Your task to perform on an android device: Search for 24"x36" picture frame on Home Depot. Image 0: 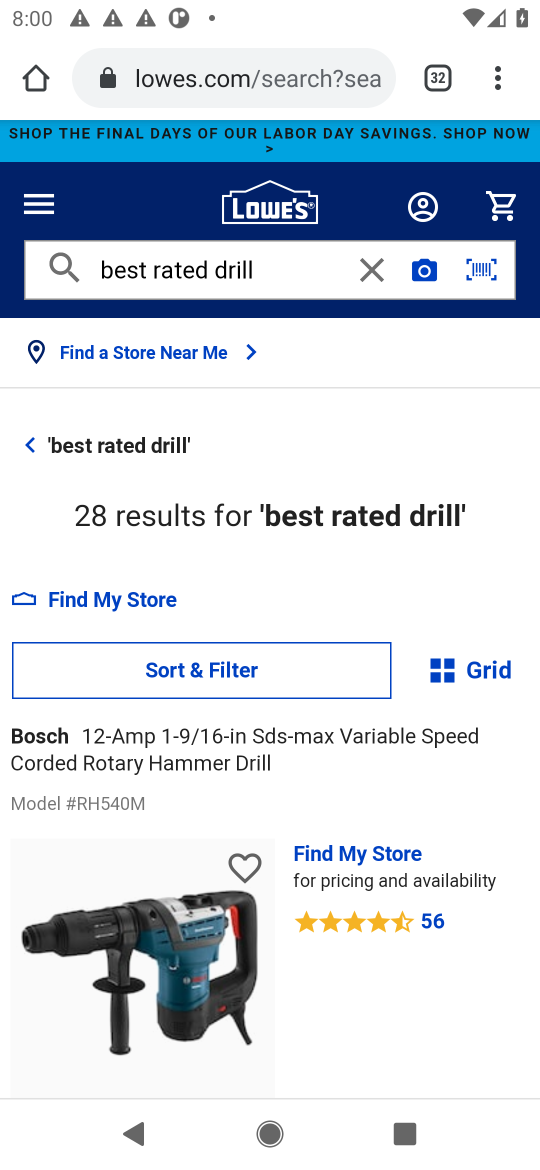
Step 0: press home button
Your task to perform on an android device: Search for 24"x36" picture frame on Home Depot. Image 1: 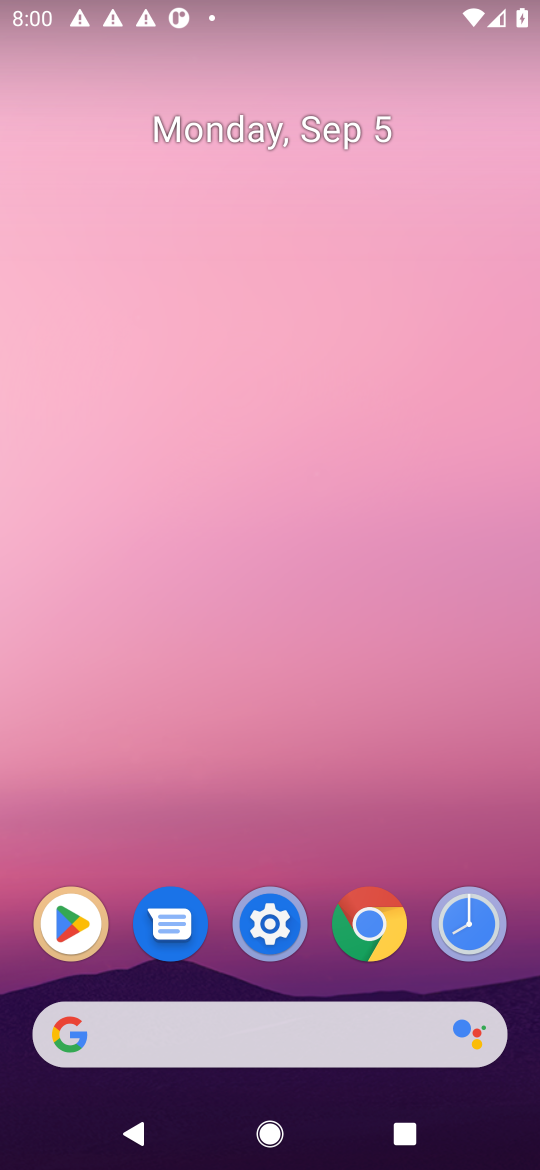
Step 1: click (396, 1026)
Your task to perform on an android device: Search for 24"x36" picture frame on Home Depot. Image 2: 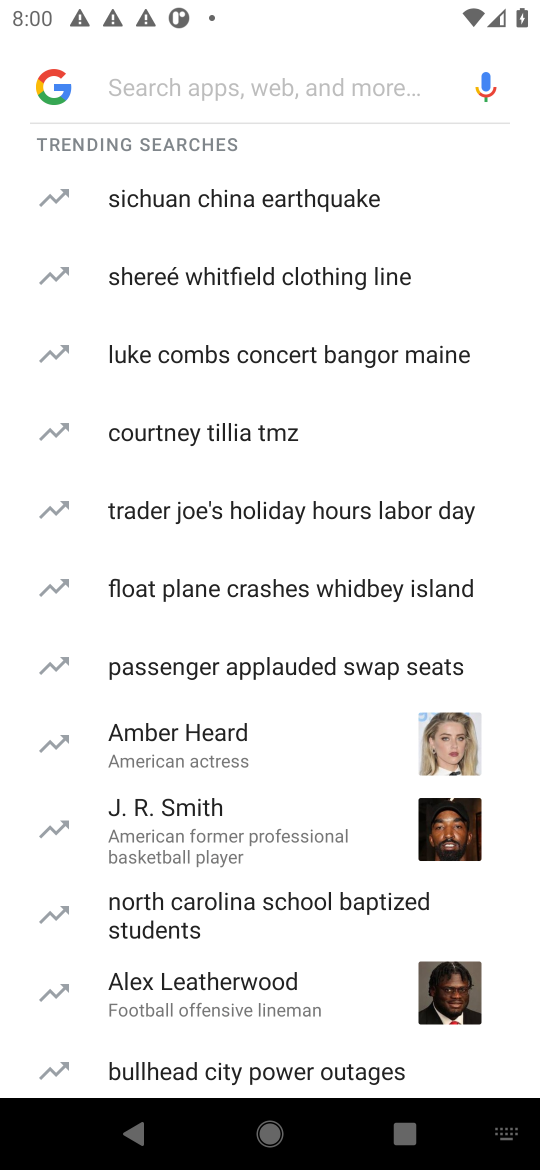
Step 2: type "home depot"
Your task to perform on an android device: Search for 24"x36" picture frame on Home Depot. Image 3: 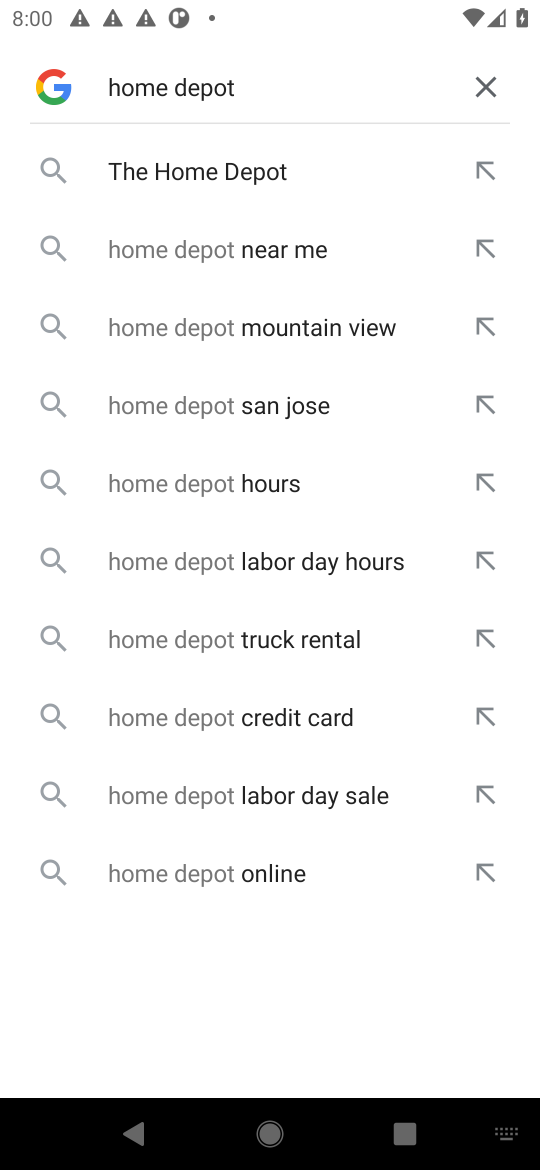
Step 3: press enter
Your task to perform on an android device: Search for 24"x36" picture frame on Home Depot. Image 4: 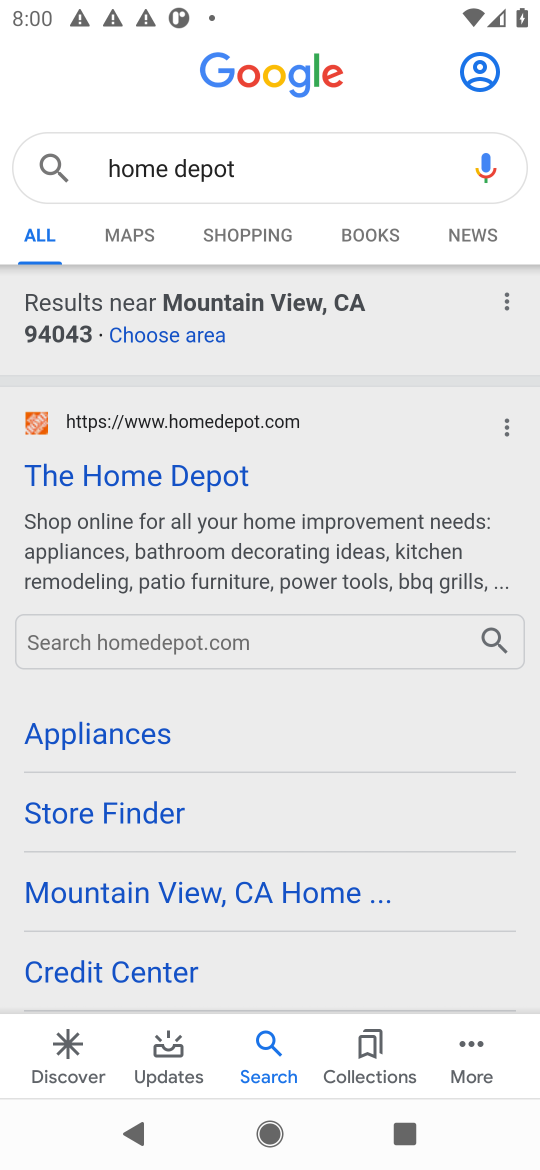
Step 4: click (181, 475)
Your task to perform on an android device: Search for 24"x36" picture frame on Home Depot. Image 5: 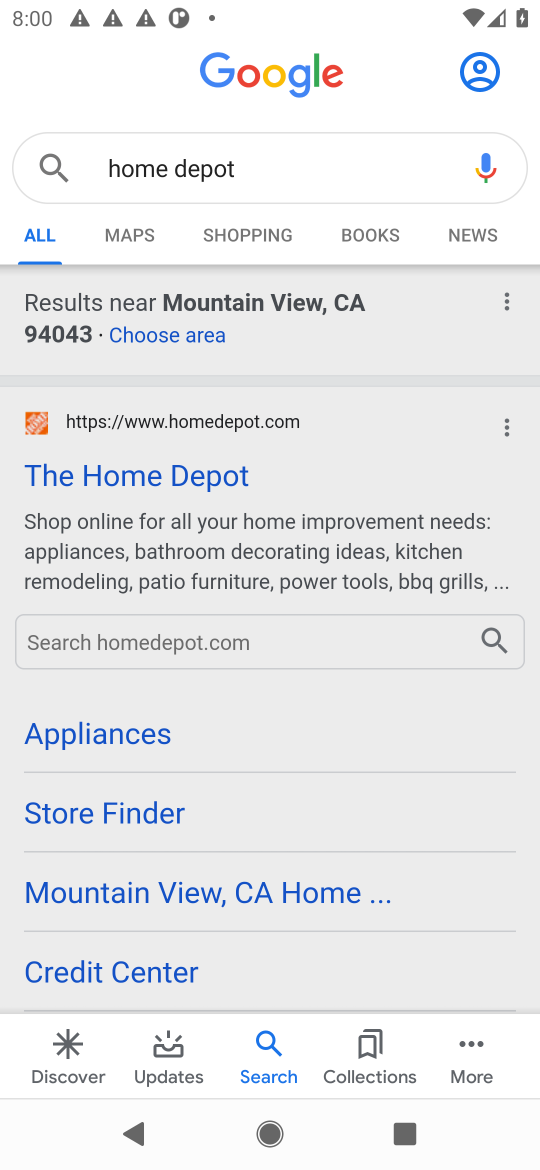
Step 5: click (195, 480)
Your task to perform on an android device: Search for 24"x36" picture frame on Home Depot. Image 6: 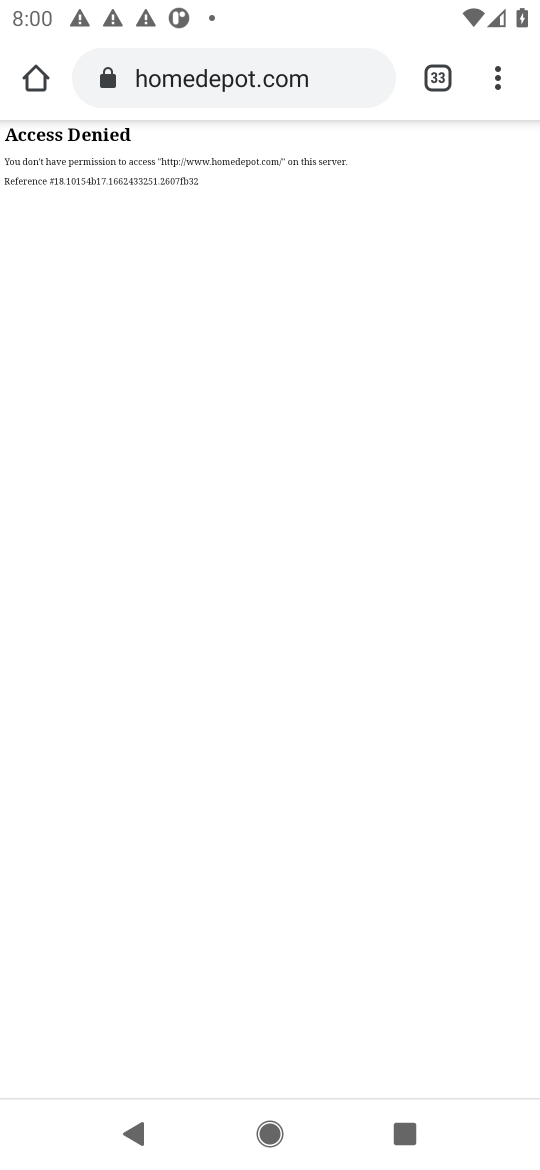
Step 6: task complete